Your task to perform on an android device: change the clock style Image 0: 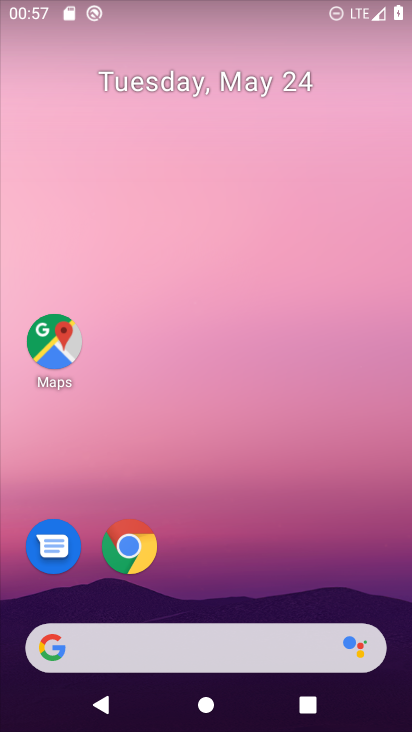
Step 0: drag from (265, 642) to (284, 2)
Your task to perform on an android device: change the clock style Image 1: 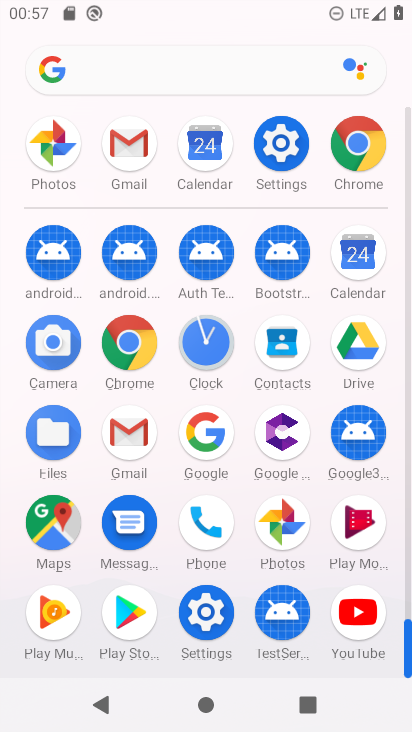
Step 1: click (207, 340)
Your task to perform on an android device: change the clock style Image 2: 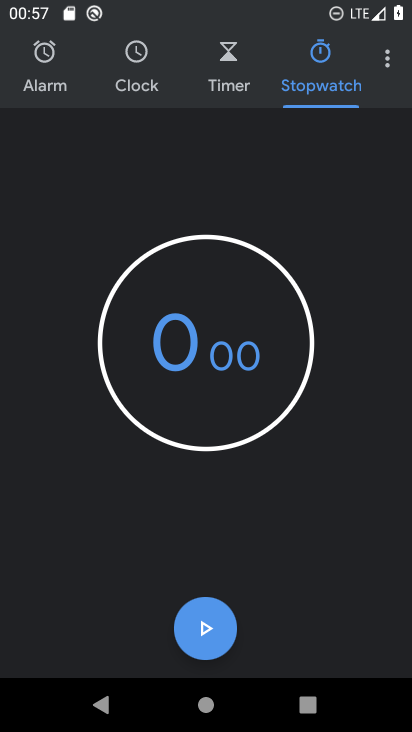
Step 2: click (390, 60)
Your task to perform on an android device: change the clock style Image 3: 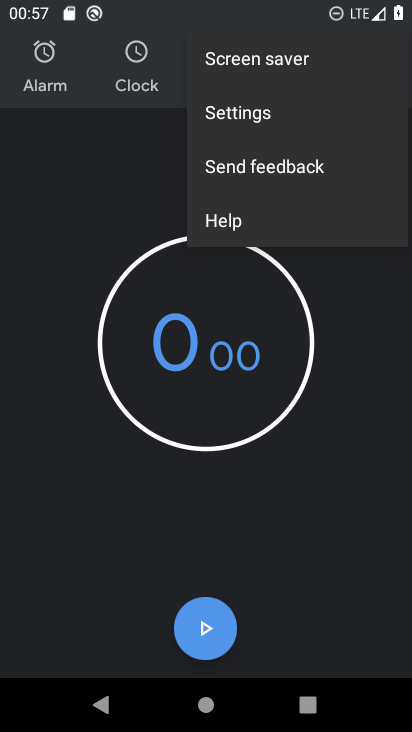
Step 3: click (271, 121)
Your task to perform on an android device: change the clock style Image 4: 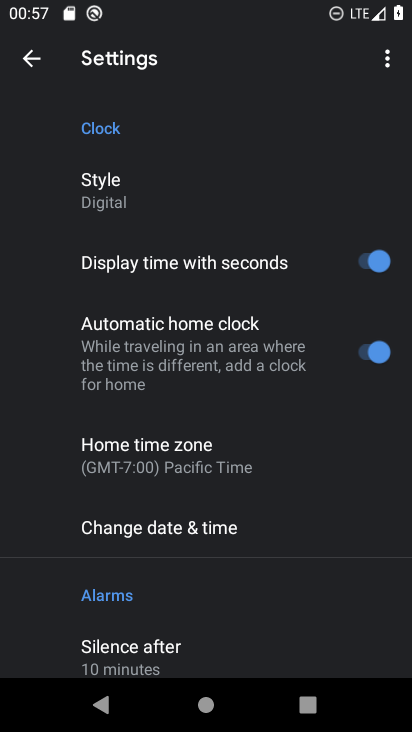
Step 4: click (134, 178)
Your task to perform on an android device: change the clock style Image 5: 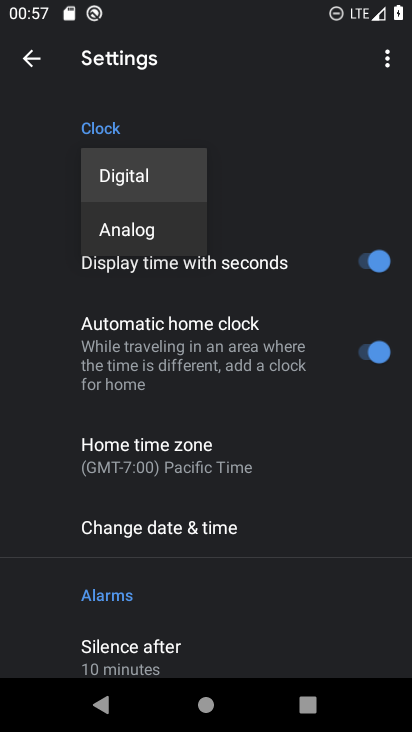
Step 5: click (144, 222)
Your task to perform on an android device: change the clock style Image 6: 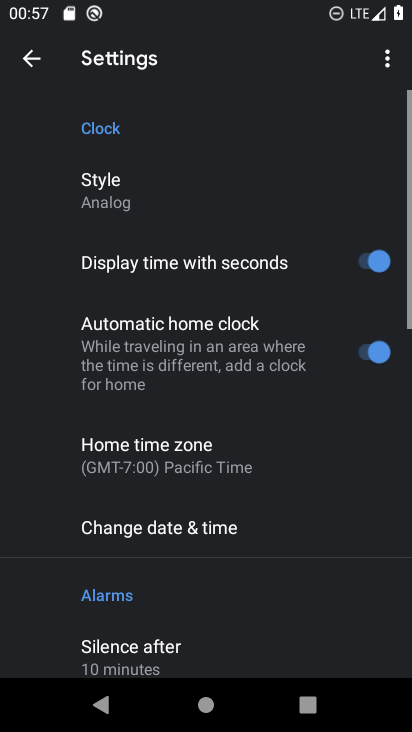
Step 6: task complete